Your task to perform on an android device: Open calendar and show me the second week of next month Image 0: 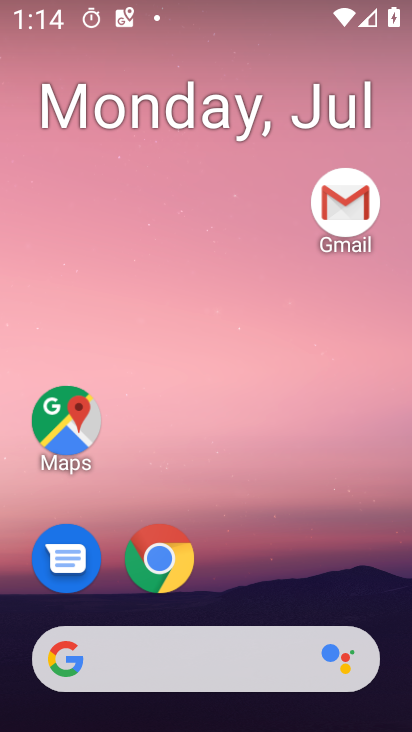
Step 0: drag from (333, 558) to (373, 95)
Your task to perform on an android device: Open calendar and show me the second week of next month Image 1: 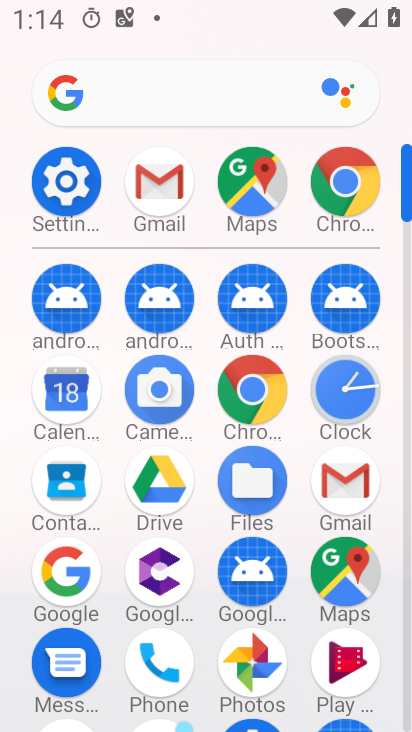
Step 1: click (64, 397)
Your task to perform on an android device: Open calendar and show me the second week of next month Image 2: 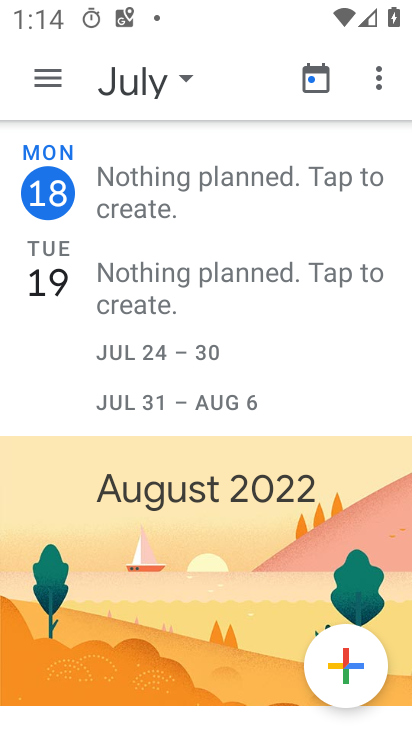
Step 2: click (185, 78)
Your task to perform on an android device: Open calendar and show me the second week of next month Image 3: 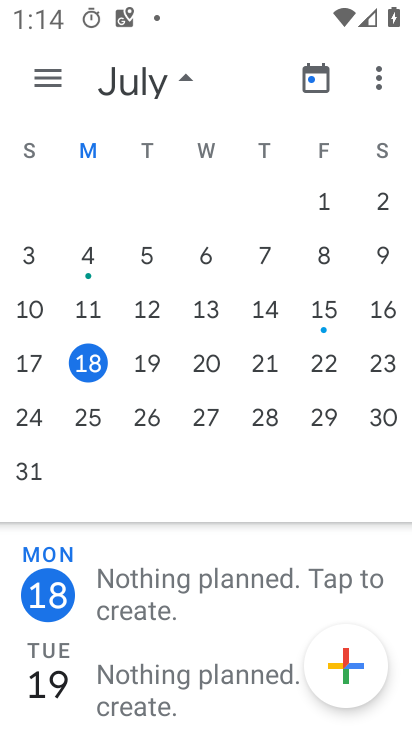
Step 3: drag from (397, 229) to (0, 213)
Your task to perform on an android device: Open calendar and show me the second week of next month Image 4: 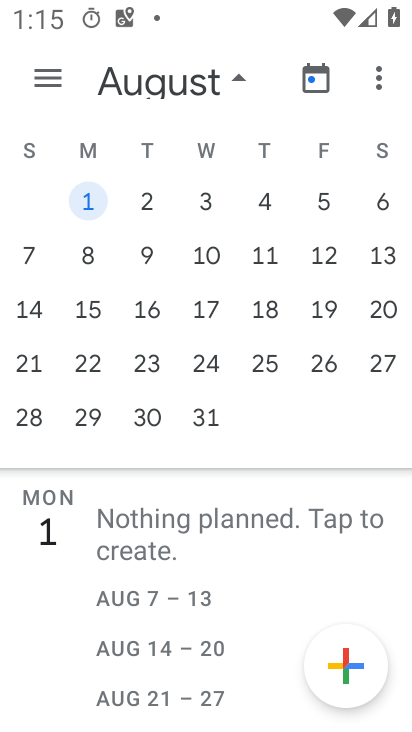
Step 4: click (93, 259)
Your task to perform on an android device: Open calendar and show me the second week of next month Image 5: 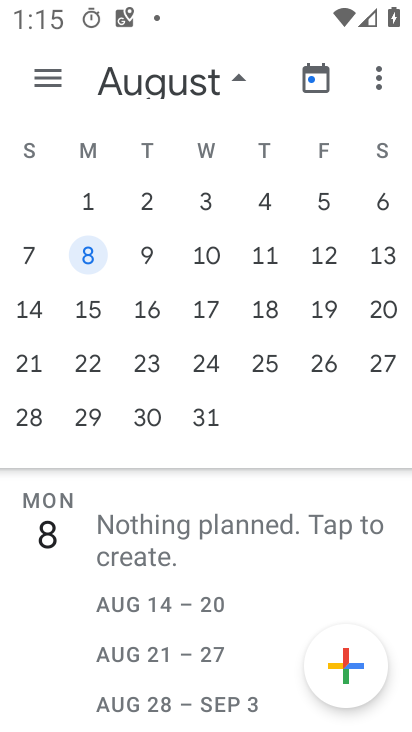
Step 5: task complete